Your task to perform on an android device: What's the weather today? Image 0: 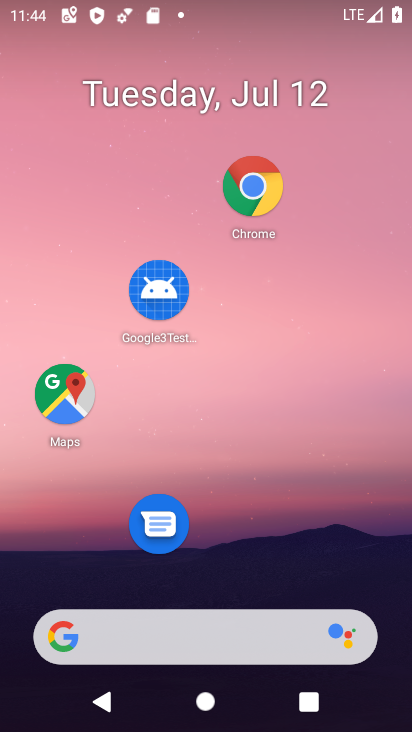
Step 0: click (194, 626)
Your task to perform on an android device: What's the weather today? Image 1: 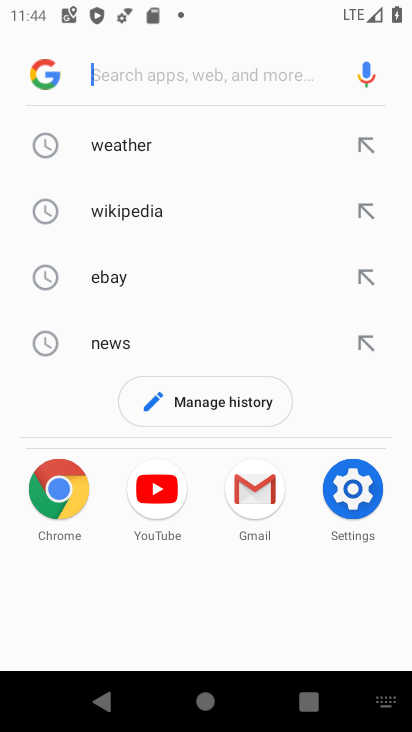
Step 1: click (85, 135)
Your task to perform on an android device: What's the weather today? Image 2: 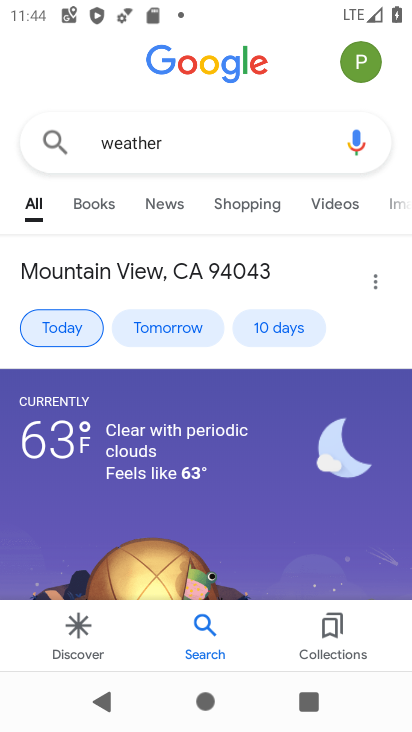
Step 2: click (82, 316)
Your task to perform on an android device: What's the weather today? Image 3: 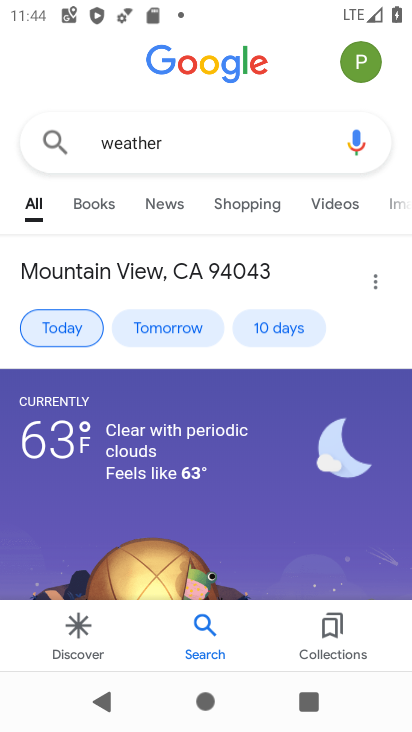
Step 3: task complete